Your task to perform on an android device: snooze an email in the gmail app Image 0: 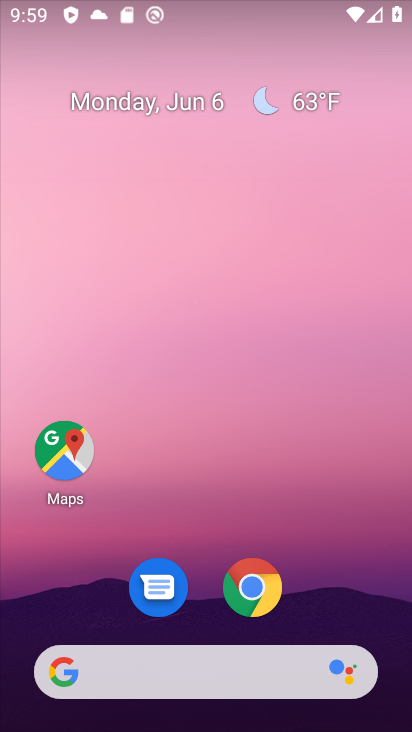
Step 0: drag from (187, 642) to (187, 204)
Your task to perform on an android device: snooze an email in the gmail app Image 1: 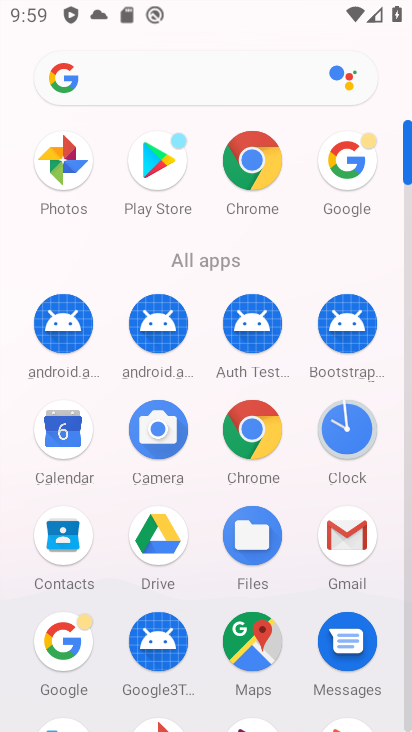
Step 1: click (324, 544)
Your task to perform on an android device: snooze an email in the gmail app Image 2: 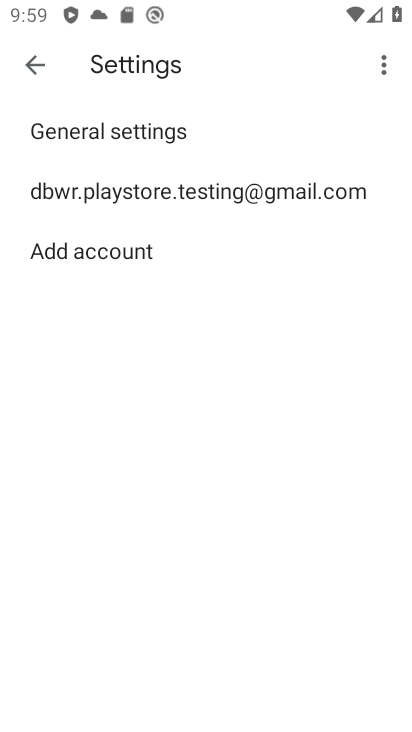
Step 2: click (31, 64)
Your task to perform on an android device: snooze an email in the gmail app Image 3: 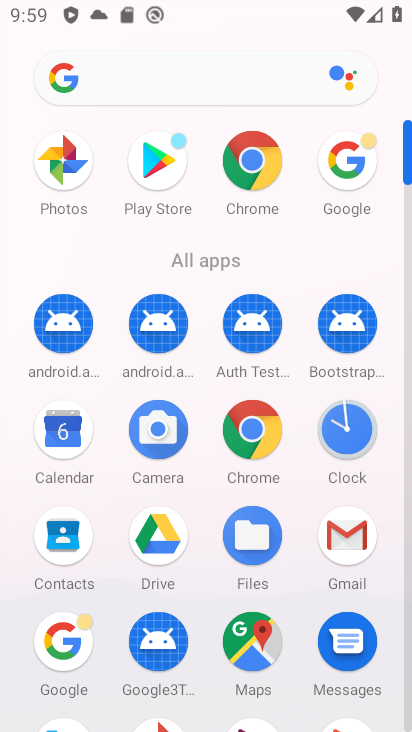
Step 3: click (344, 538)
Your task to perform on an android device: snooze an email in the gmail app Image 4: 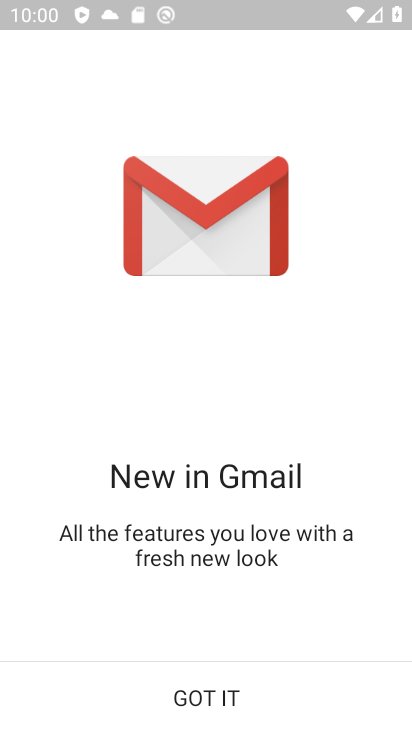
Step 4: click (197, 705)
Your task to perform on an android device: snooze an email in the gmail app Image 5: 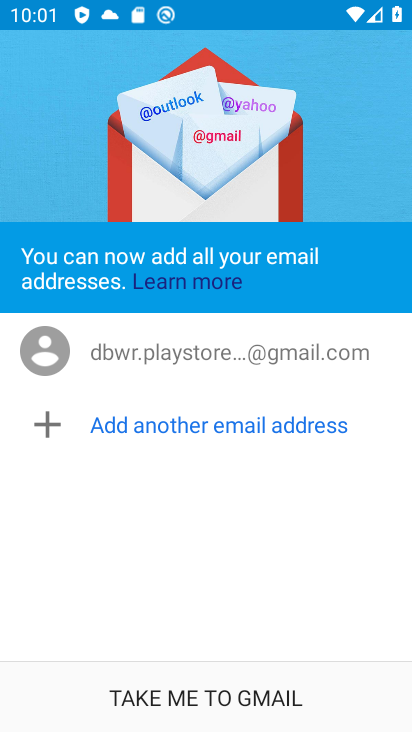
Step 5: click (223, 707)
Your task to perform on an android device: snooze an email in the gmail app Image 6: 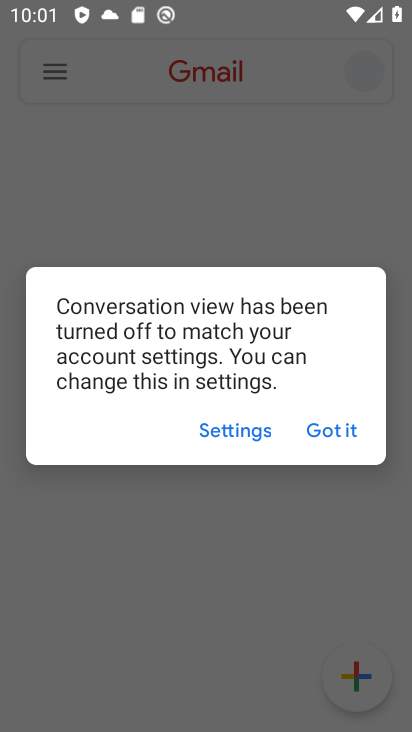
Step 6: click (335, 420)
Your task to perform on an android device: snooze an email in the gmail app Image 7: 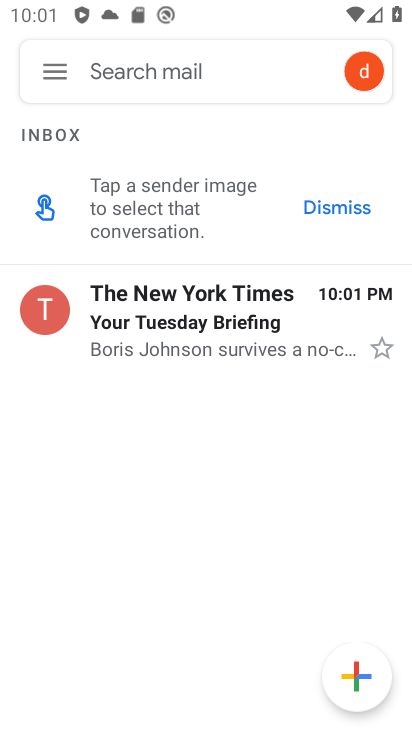
Step 7: click (185, 327)
Your task to perform on an android device: snooze an email in the gmail app Image 8: 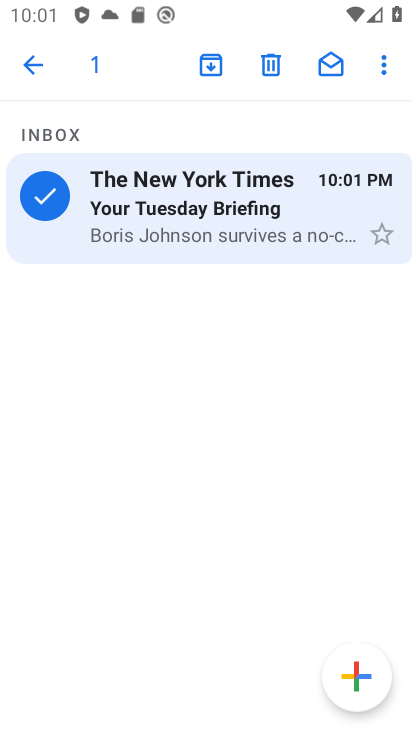
Step 8: click (387, 65)
Your task to perform on an android device: snooze an email in the gmail app Image 9: 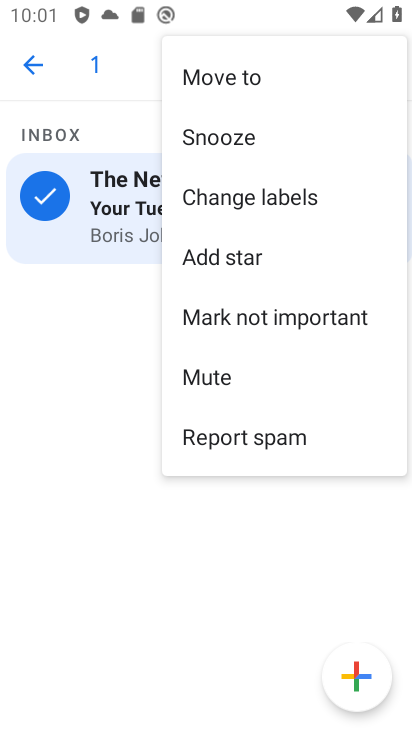
Step 9: click (240, 126)
Your task to perform on an android device: snooze an email in the gmail app Image 10: 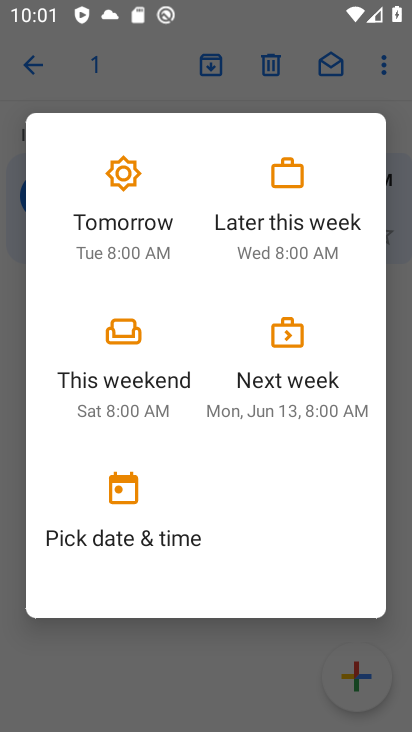
Step 10: click (134, 380)
Your task to perform on an android device: snooze an email in the gmail app Image 11: 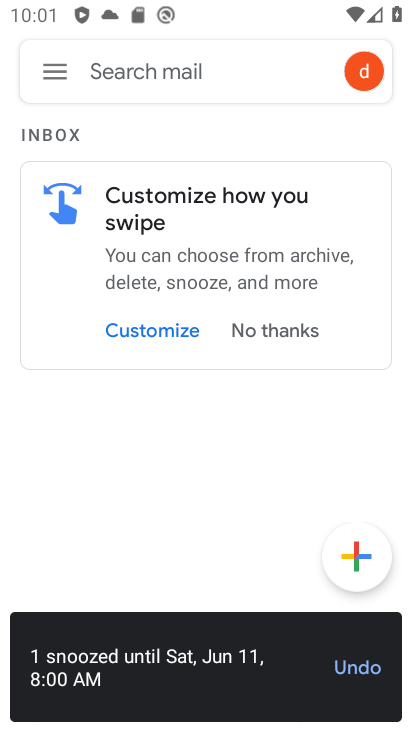
Step 11: task complete